Your task to perform on an android device: Open battery settings Image 0: 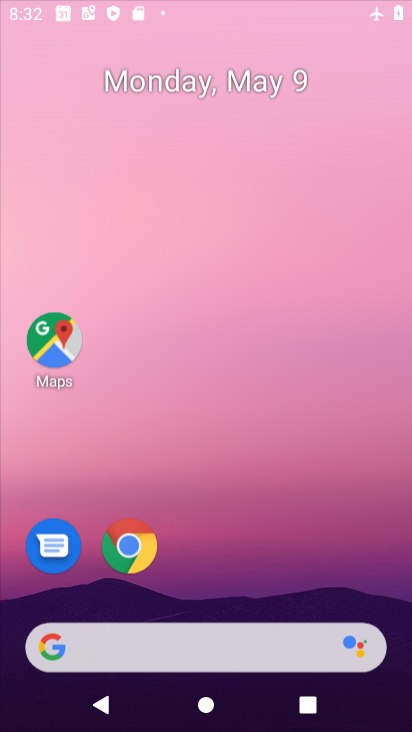
Step 0: click (179, 643)
Your task to perform on an android device: Open battery settings Image 1: 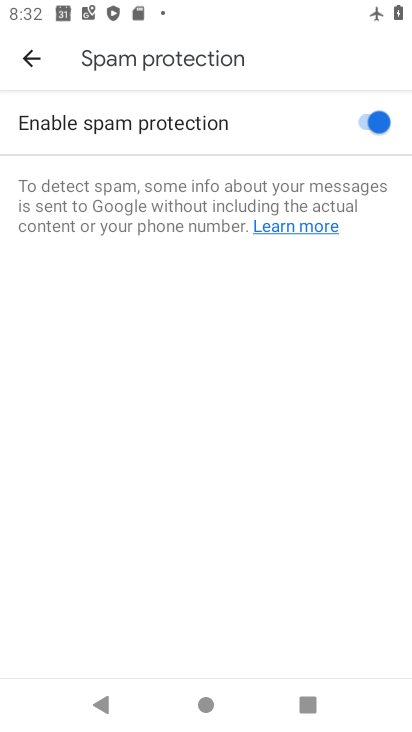
Step 1: press home button
Your task to perform on an android device: Open battery settings Image 2: 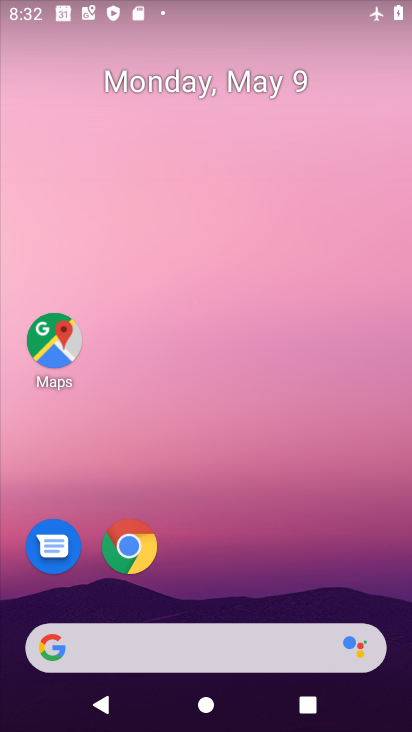
Step 2: drag from (265, 705) to (275, 2)
Your task to perform on an android device: Open battery settings Image 3: 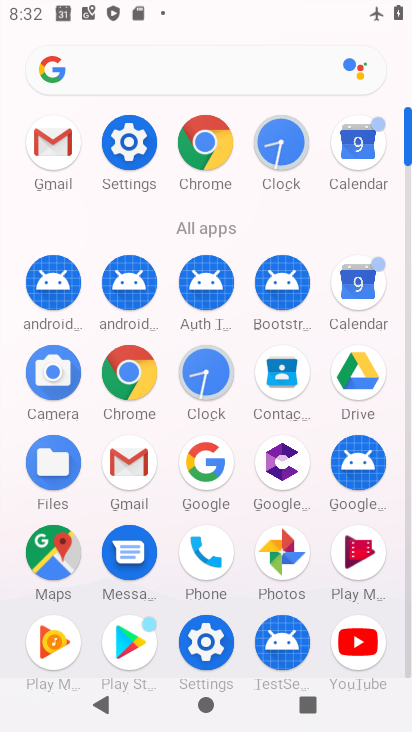
Step 3: click (135, 154)
Your task to perform on an android device: Open battery settings Image 4: 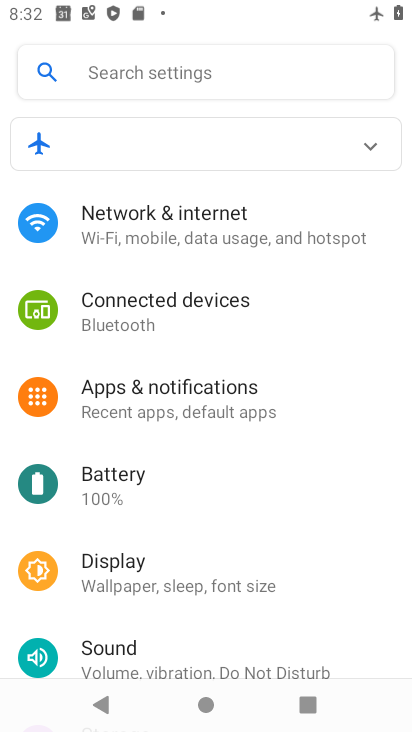
Step 4: click (92, 474)
Your task to perform on an android device: Open battery settings Image 5: 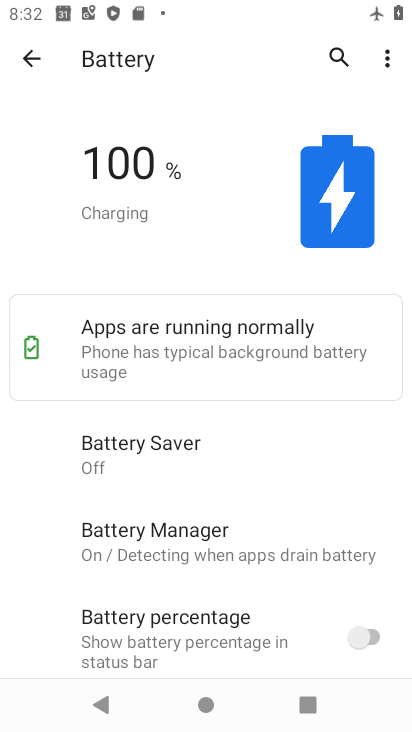
Step 5: task complete